Your task to perform on an android device: Open Android settings Image 0: 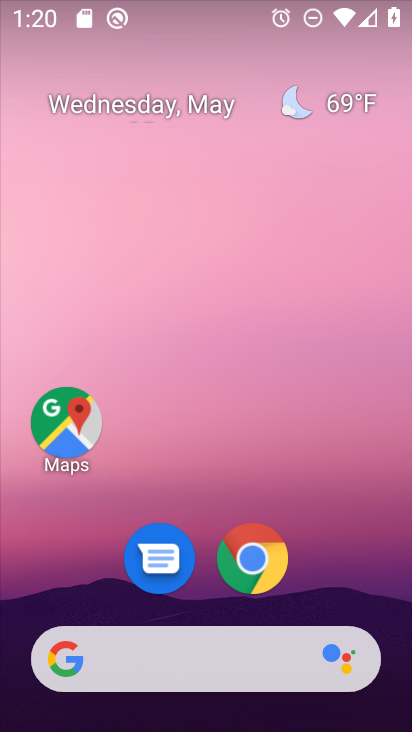
Step 0: drag from (397, 650) to (301, 115)
Your task to perform on an android device: Open Android settings Image 1: 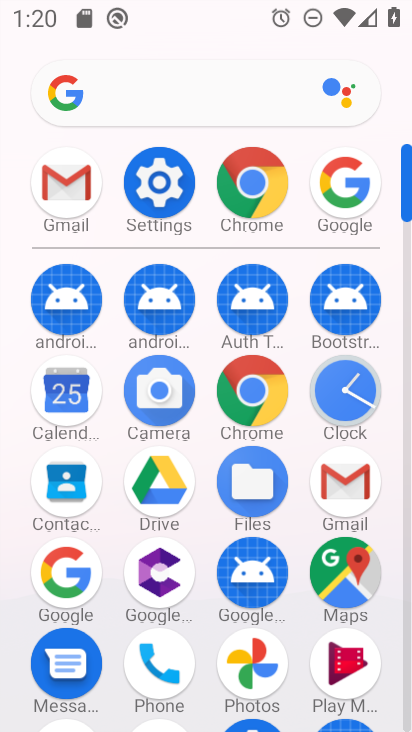
Step 1: click (156, 194)
Your task to perform on an android device: Open Android settings Image 2: 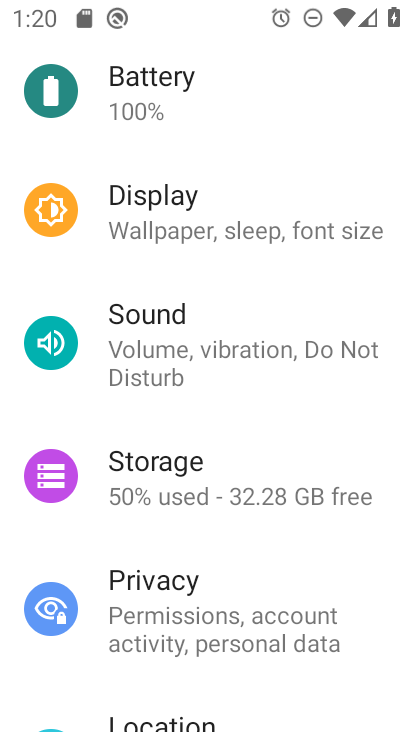
Step 2: drag from (278, 620) to (290, 100)
Your task to perform on an android device: Open Android settings Image 3: 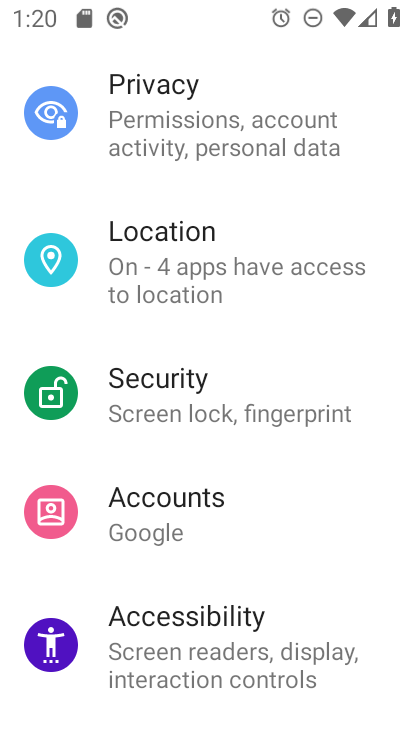
Step 3: drag from (189, 644) to (228, 164)
Your task to perform on an android device: Open Android settings Image 4: 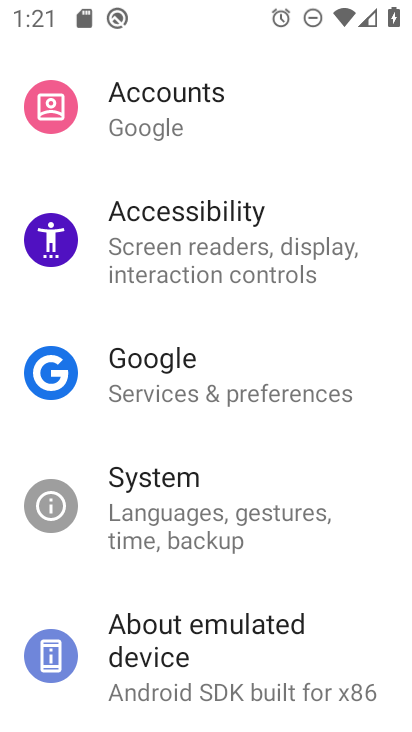
Step 4: click (200, 634)
Your task to perform on an android device: Open Android settings Image 5: 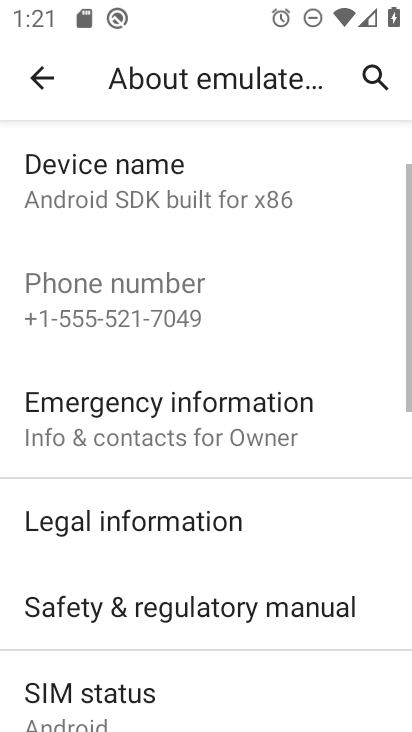
Step 5: drag from (170, 674) to (204, 304)
Your task to perform on an android device: Open Android settings Image 6: 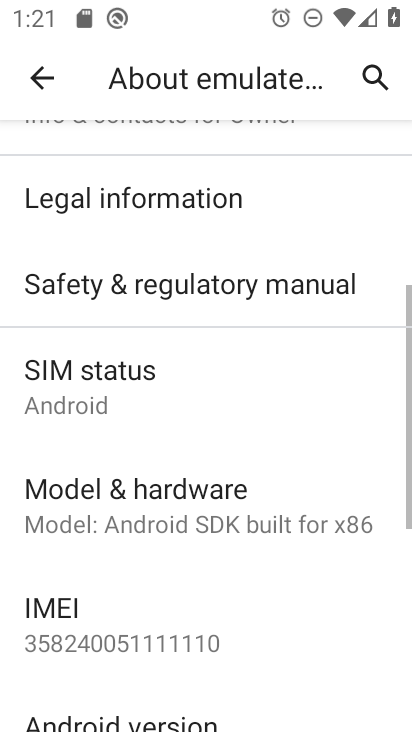
Step 6: drag from (148, 635) to (207, 315)
Your task to perform on an android device: Open Android settings Image 7: 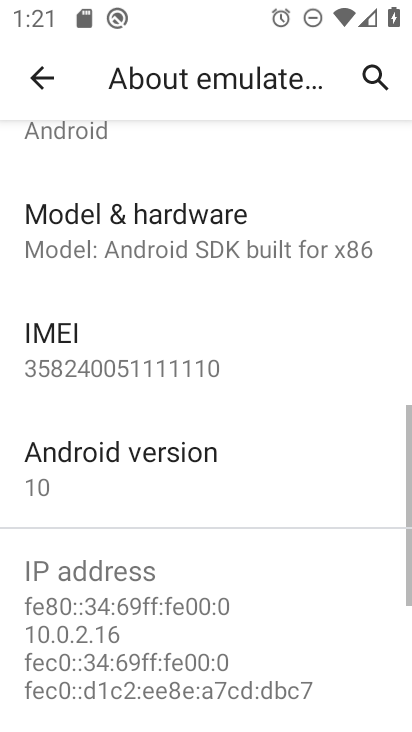
Step 7: click (176, 488)
Your task to perform on an android device: Open Android settings Image 8: 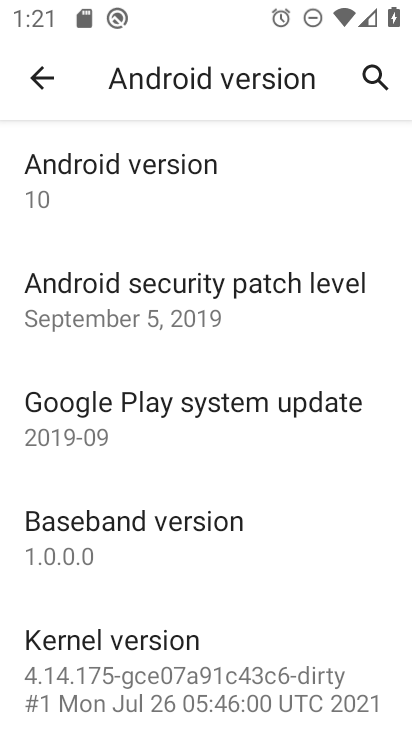
Step 8: task complete